Your task to perform on an android device: find photos in the google photos app Image 0: 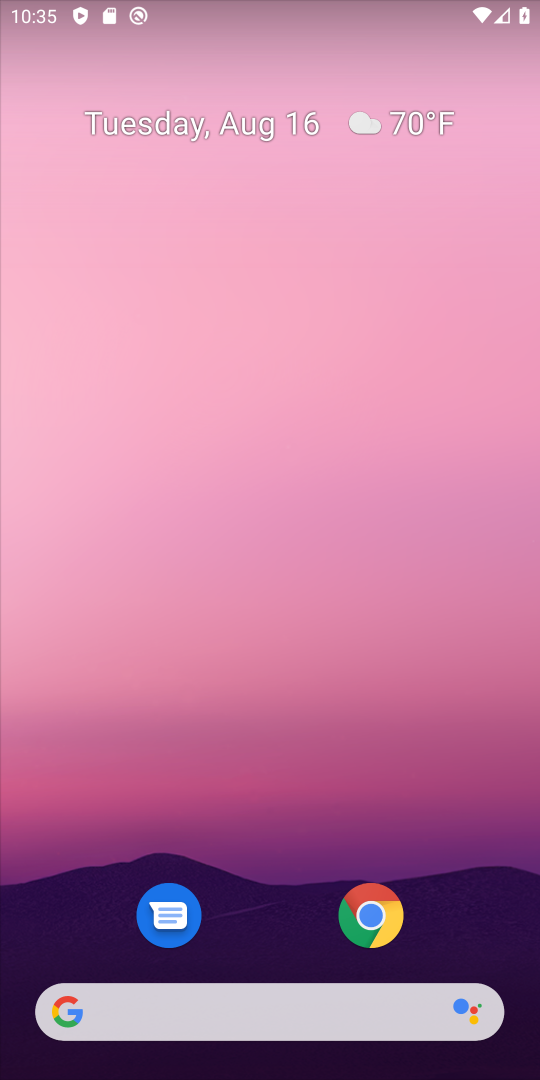
Step 0: click (232, 38)
Your task to perform on an android device: find photos in the google photos app Image 1: 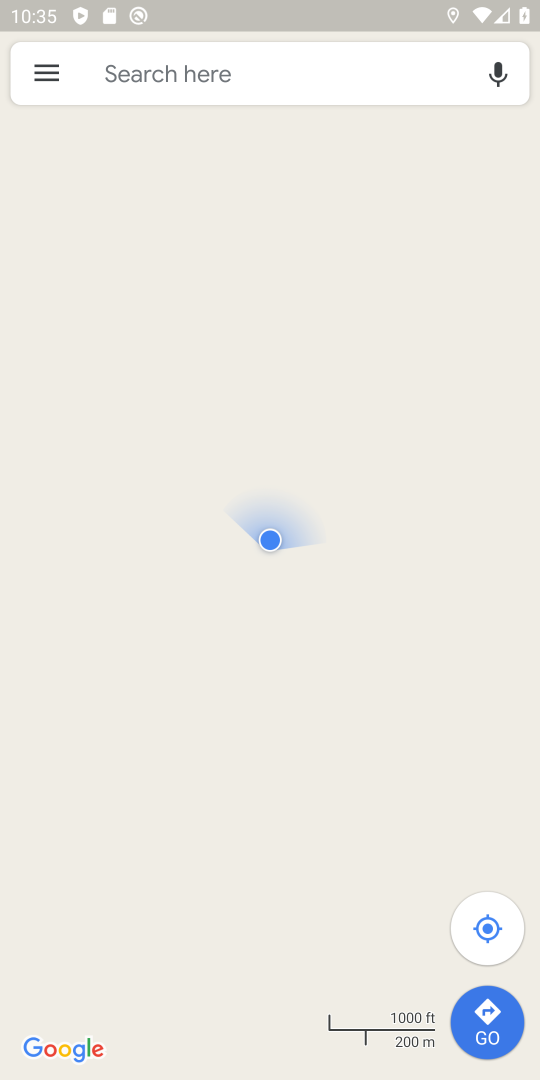
Step 1: press home button
Your task to perform on an android device: find photos in the google photos app Image 2: 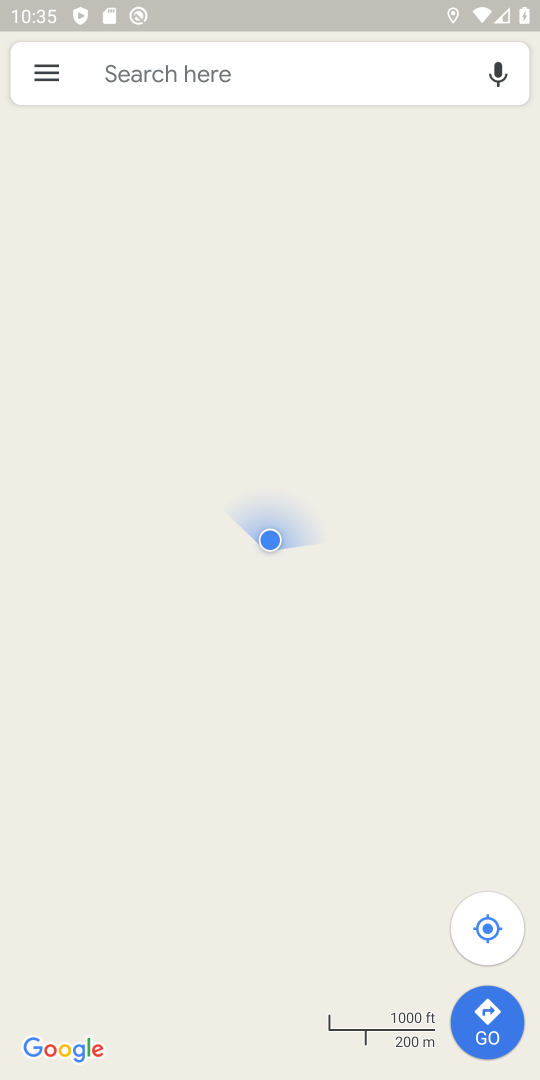
Step 2: drag from (232, 38) to (461, 725)
Your task to perform on an android device: find photos in the google photos app Image 3: 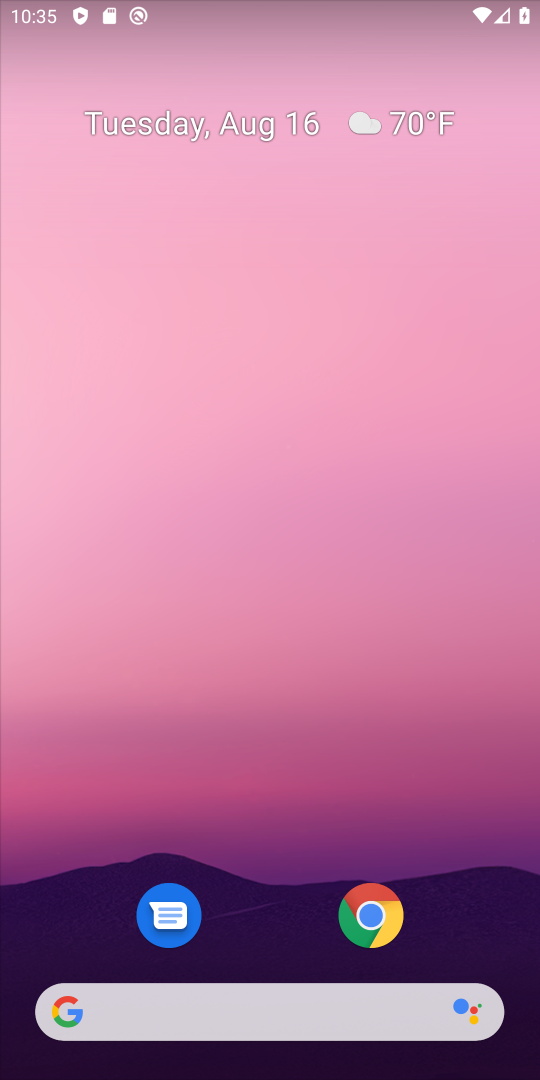
Step 3: drag from (276, 978) to (320, 25)
Your task to perform on an android device: find photos in the google photos app Image 4: 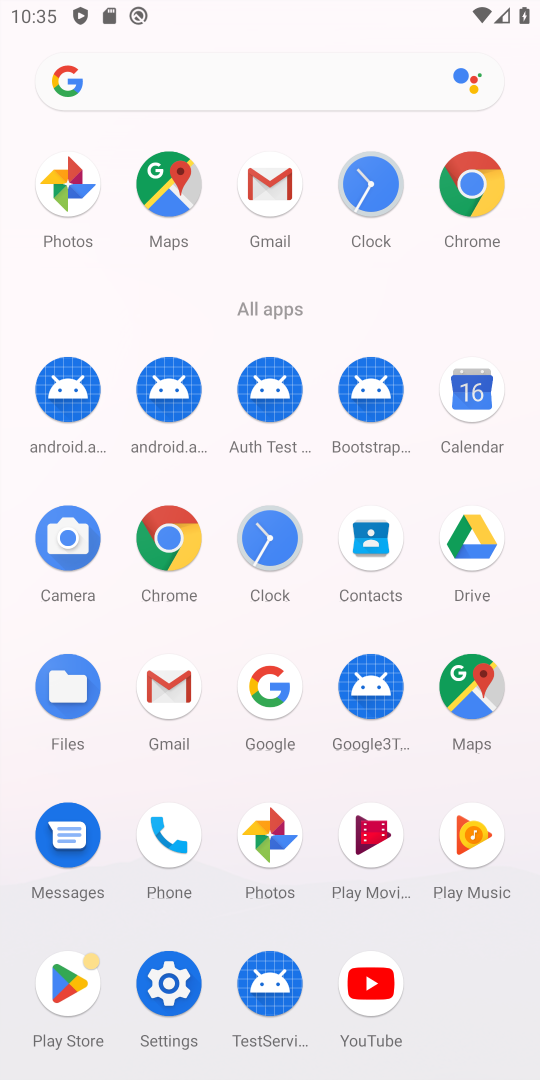
Step 4: click (273, 844)
Your task to perform on an android device: find photos in the google photos app Image 5: 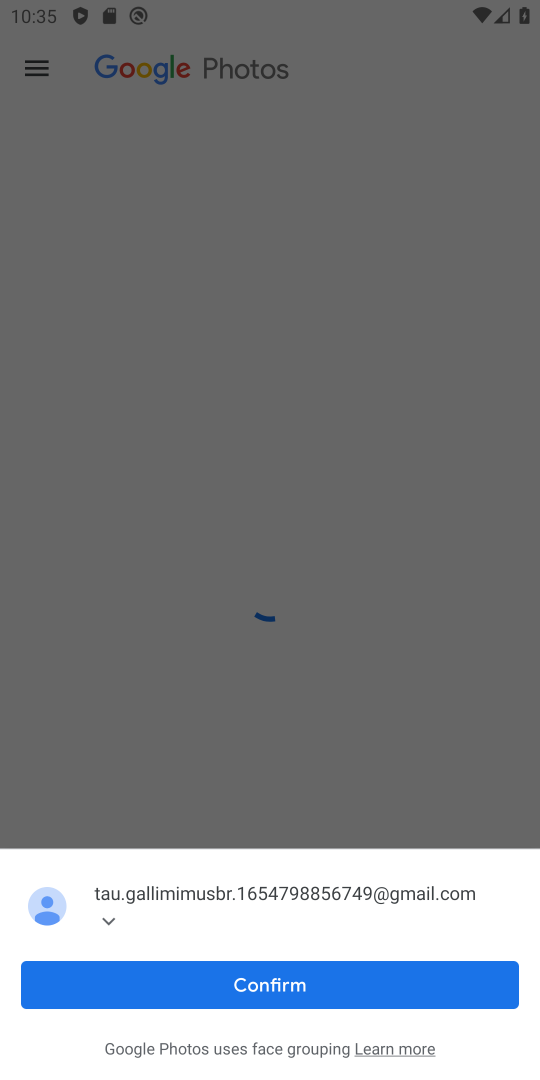
Step 5: click (357, 966)
Your task to perform on an android device: find photos in the google photos app Image 6: 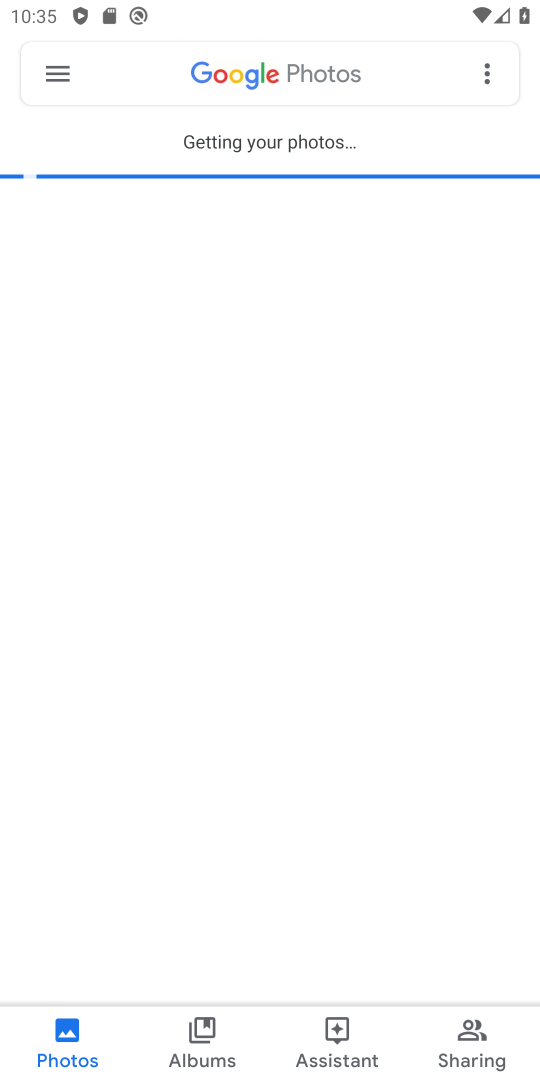
Step 6: task complete